Your task to perform on an android device: empty trash in the gmail app Image 0: 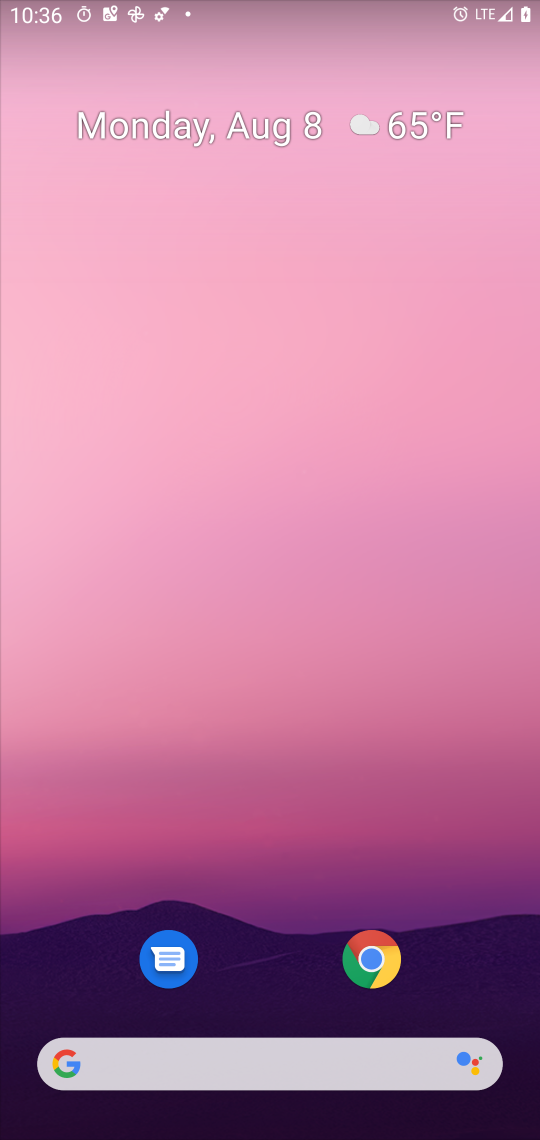
Step 0: drag from (467, 926) to (361, 189)
Your task to perform on an android device: empty trash in the gmail app Image 1: 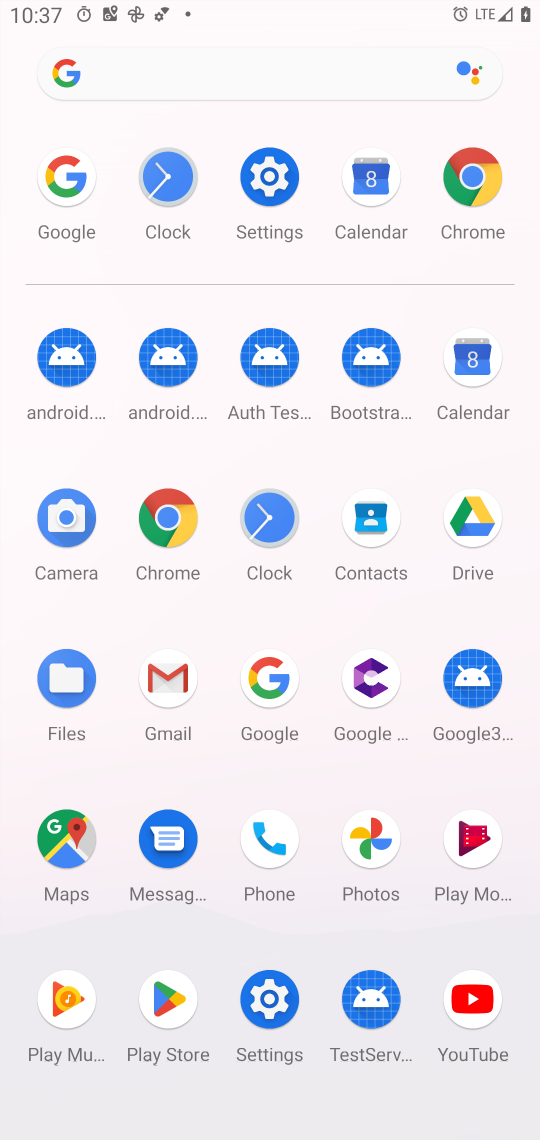
Step 1: click (175, 722)
Your task to perform on an android device: empty trash in the gmail app Image 2: 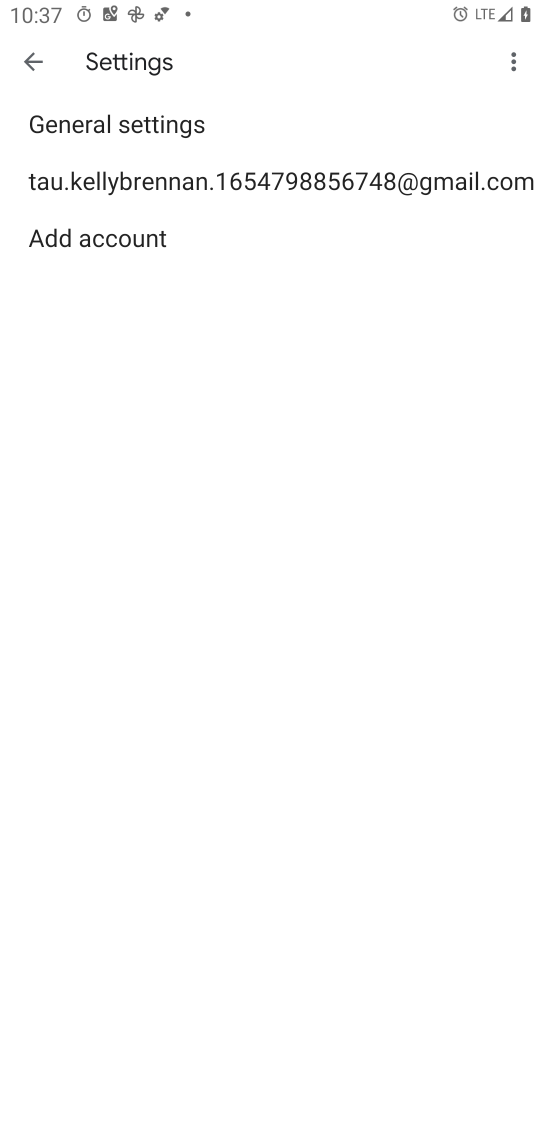
Step 2: press back button
Your task to perform on an android device: empty trash in the gmail app Image 3: 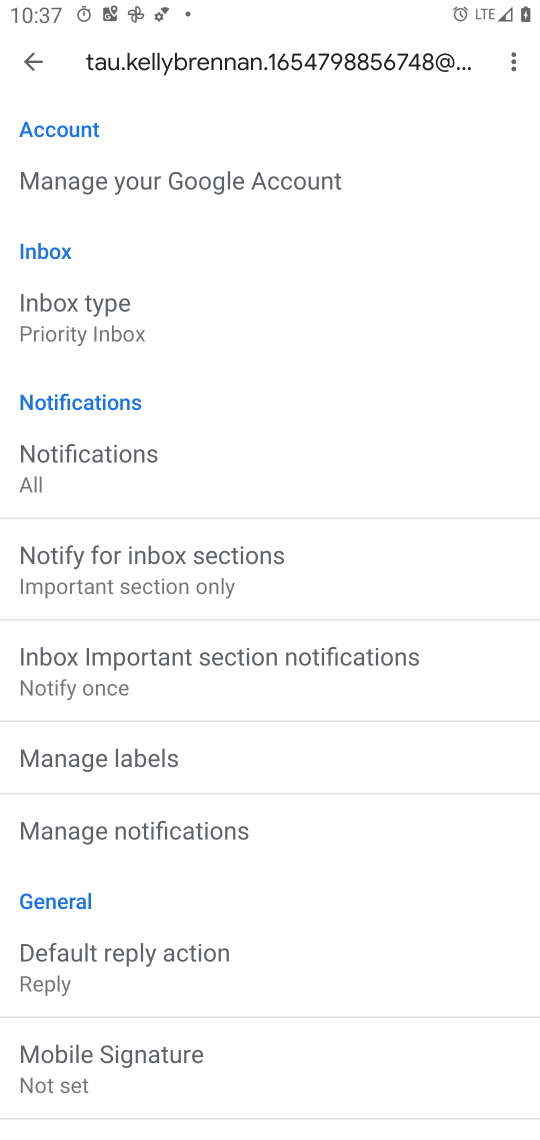
Step 3: press back button
Your task to perform on an android device: empty trash in the gmail app Image 4: 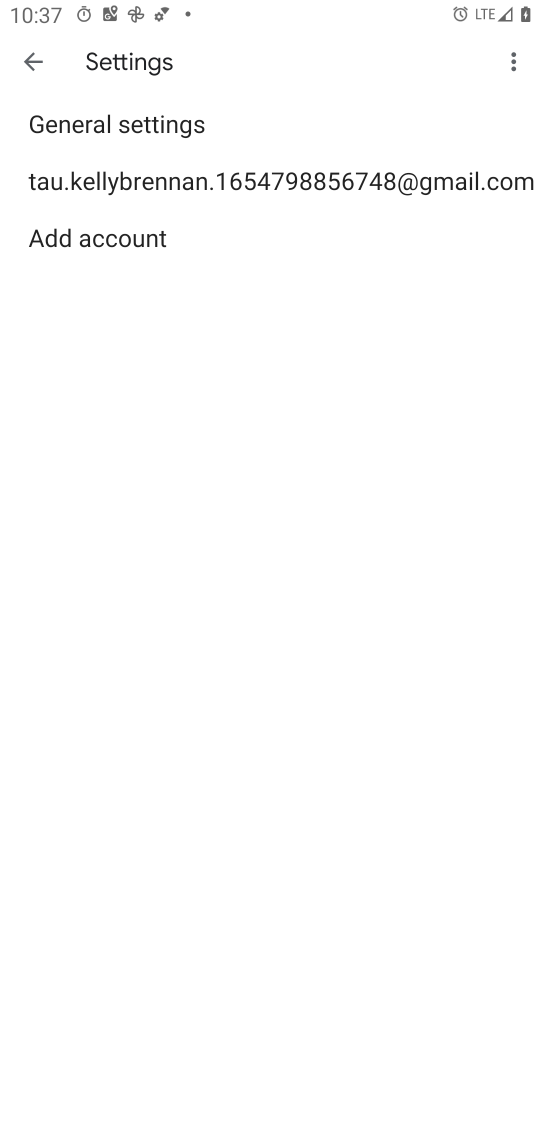
Step 4: press back button
Your task to perform on an android device: empty trash in the gmail app Image 5: 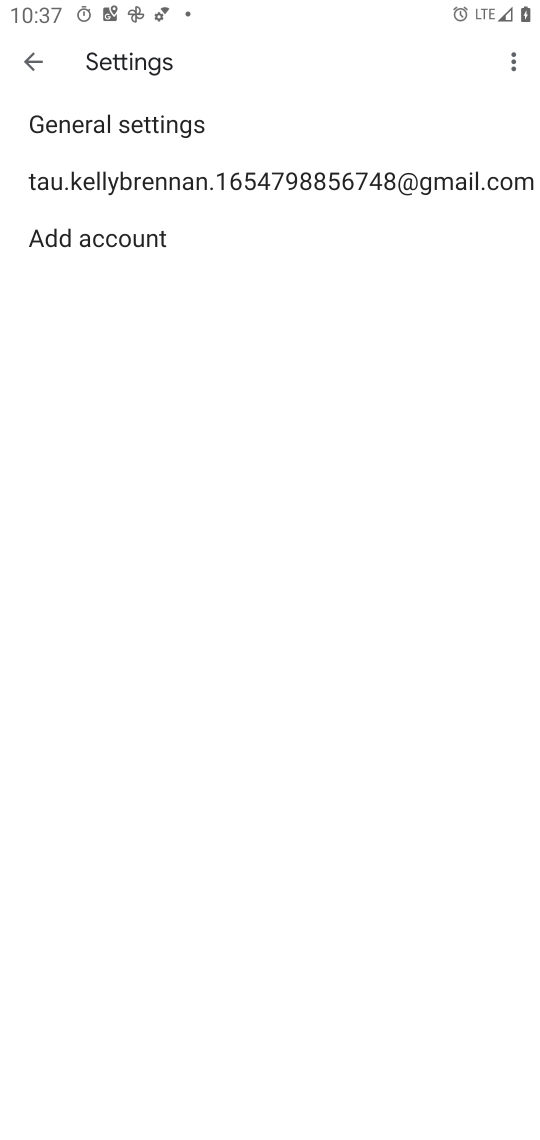
Step 5: press back button
Your task to perform on an android device: empty trash in the gmail app Image 6: 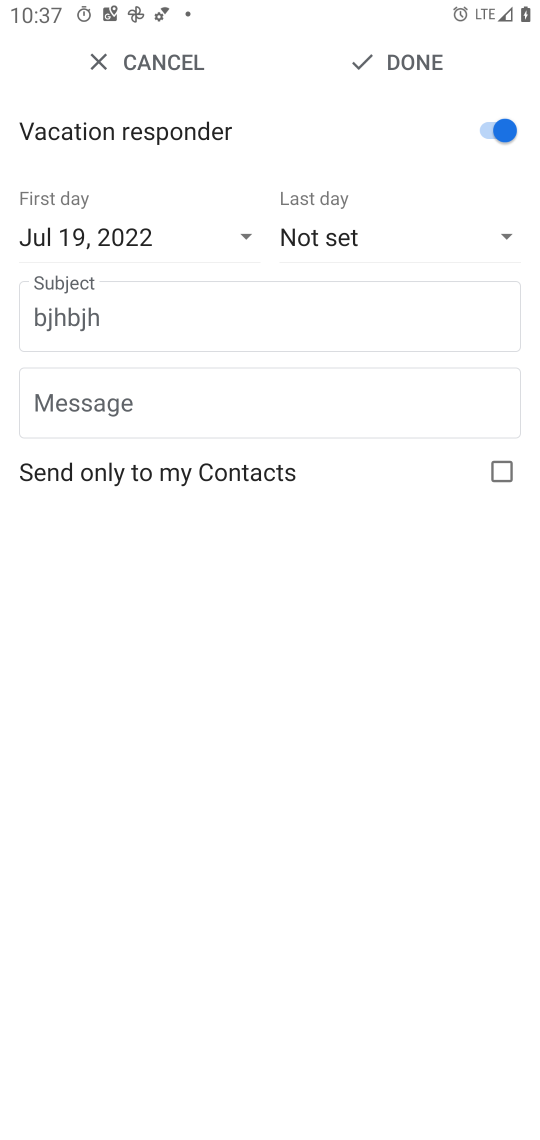
Step 6: press back button
Your task to perform on an android device: empty trash in the gmail app Image 7: 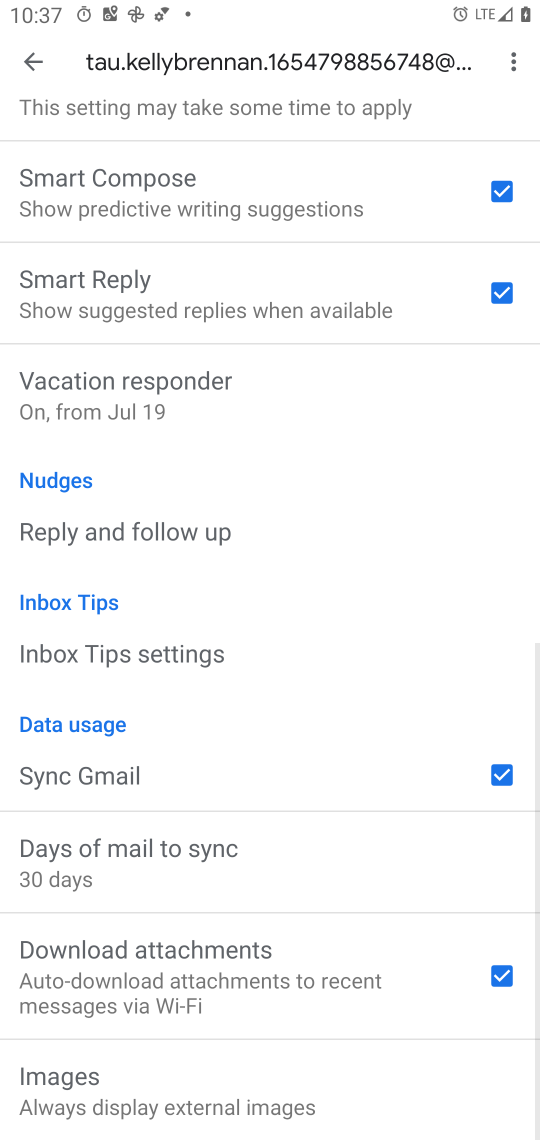
Step 7: press back button
Your task to perform on an android device: empty trash in the gmail app Image 8: 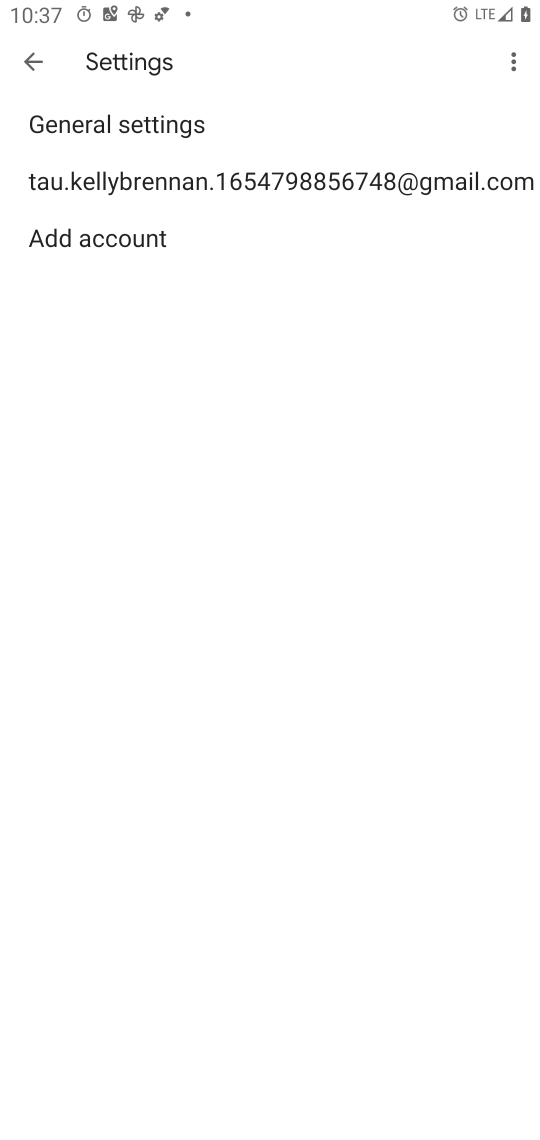
Step 8: press back button
Your task to perform on an android device: empty trash in the gmail app Image 9: 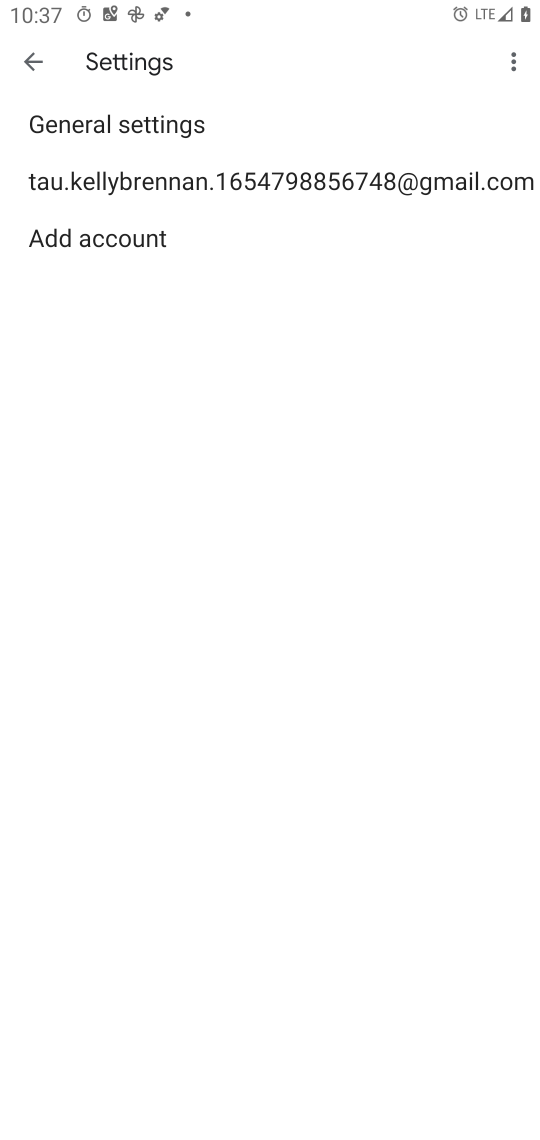
Step 9: press back button
Your task to perform on an android device: empty trash in the gmail app Image 10: 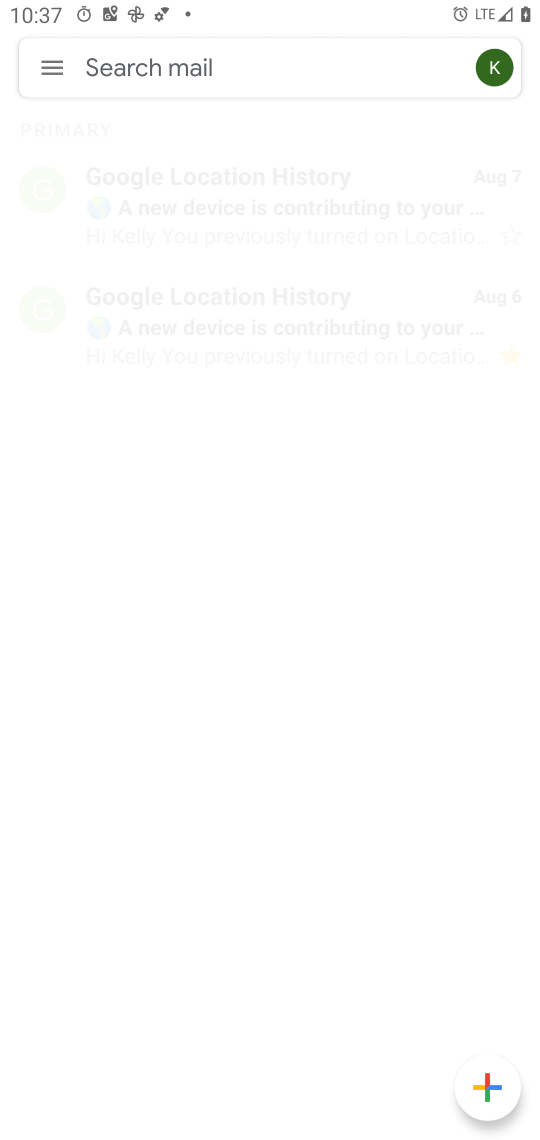
Step 10: click (37, 75)
Your task to perform on an android device: empty trash in the gmail app Image 11: 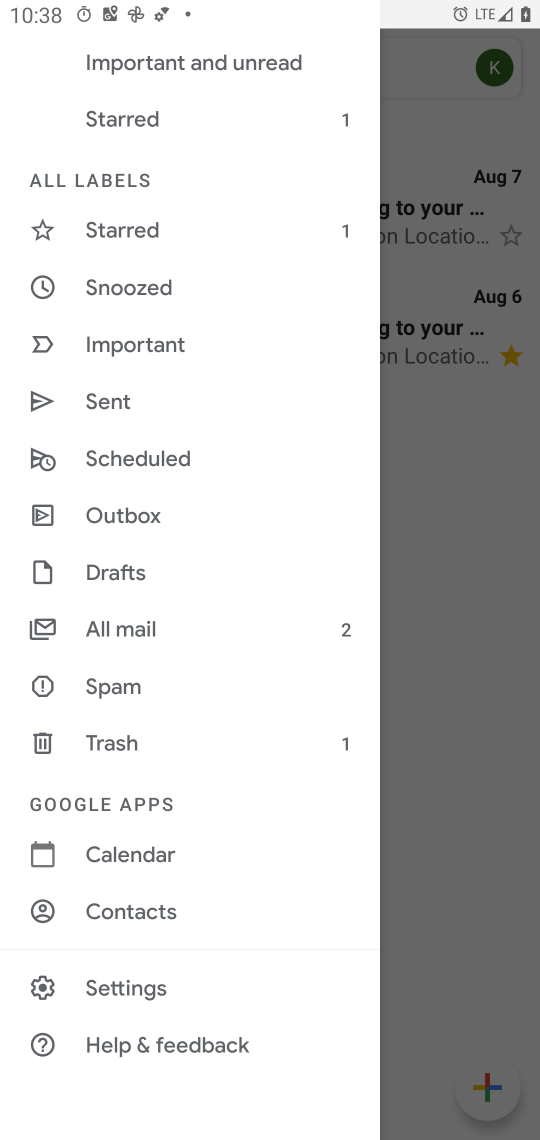
Step 11: drag from (187, 983) to (344, 525)
Your task to perform on an android device: empty trash in the gmail app Image 12: 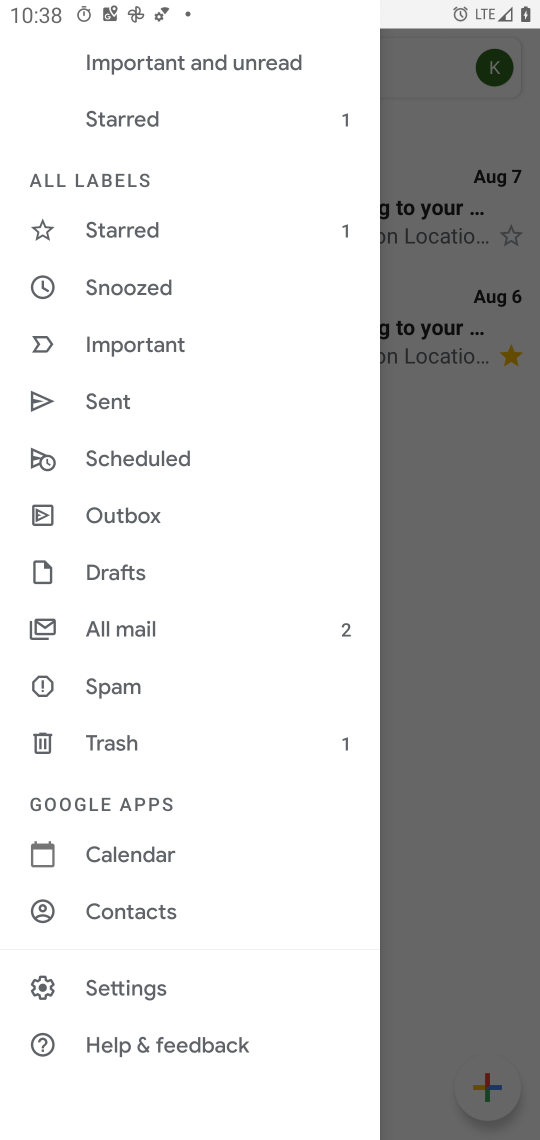
Step 12: click (124, 743)
Your task to perform on an android device: empty trash in the gmail app Image 13: 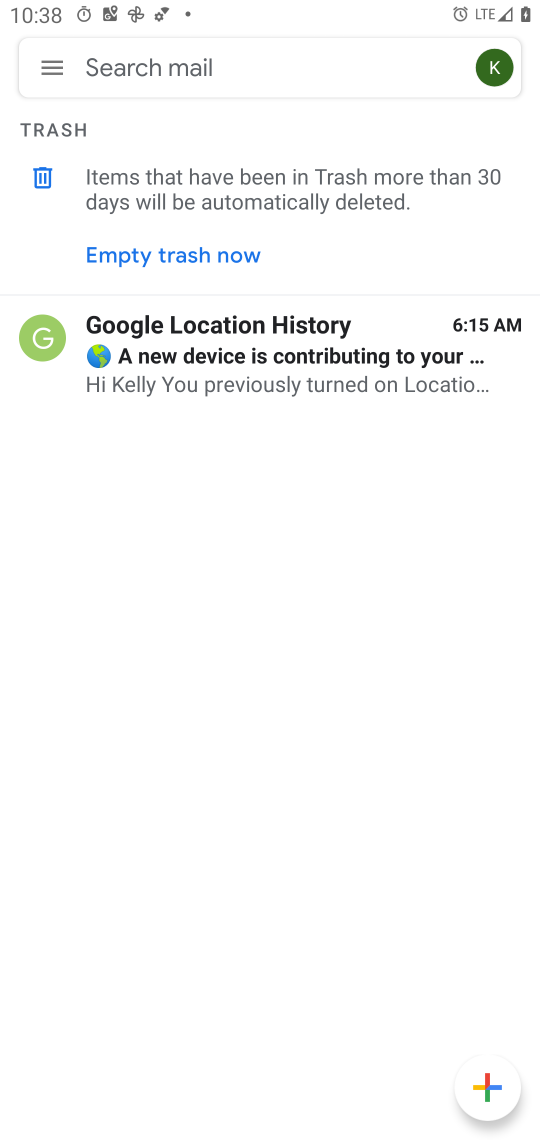
Step 13: click (162, 264)
Your task to perform on an android device: empty trash in the gmail app Image 14: 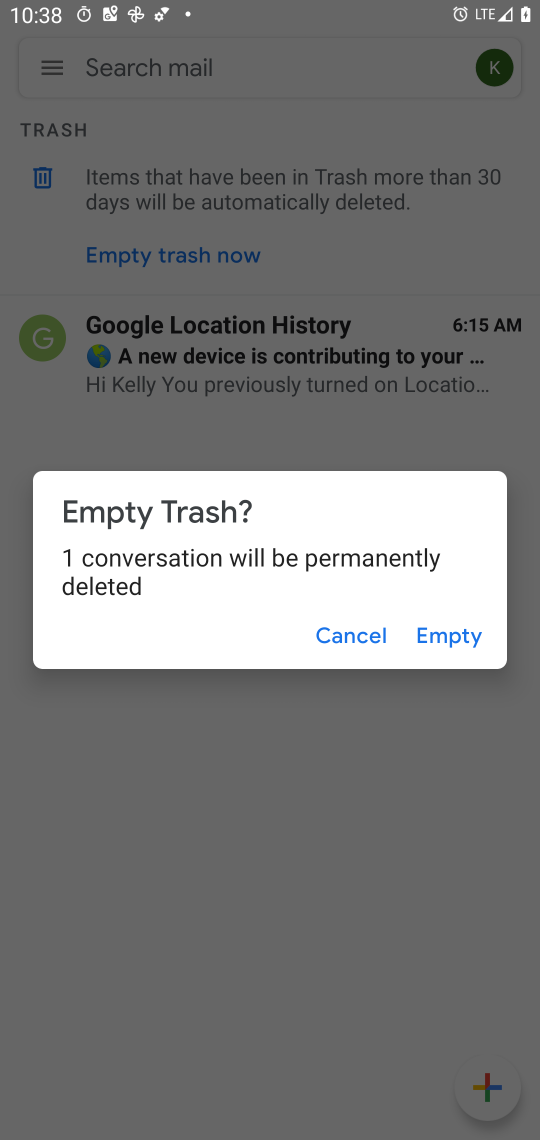
Step 14: click (447, 653)
Your task to perform on an android device: empty trash in the gmail app Image 15: 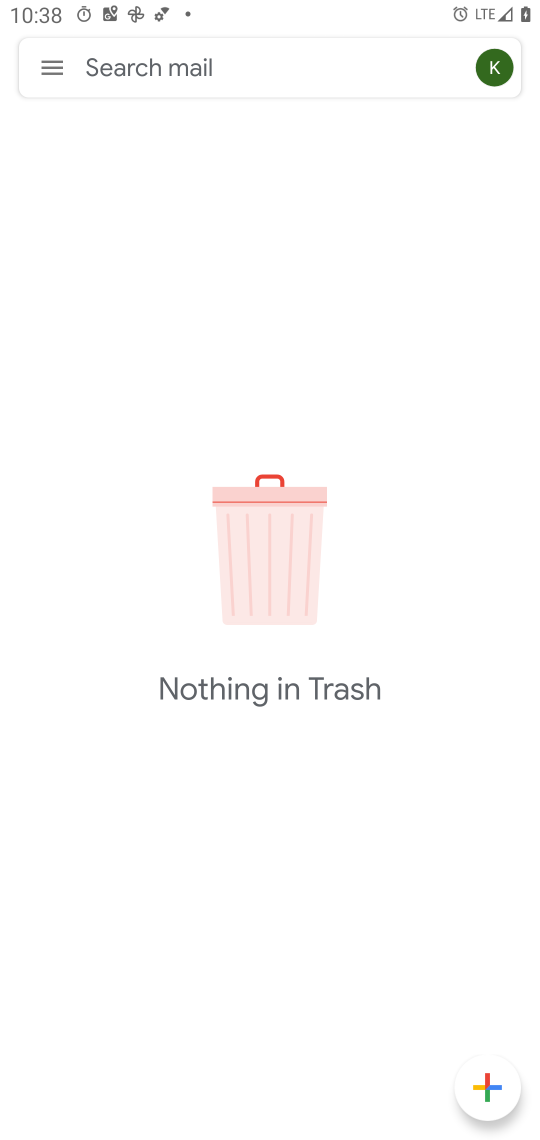
Step 15: task complete